Your task to perform on an android device: turn smart compose on in the gmail app Image 0: 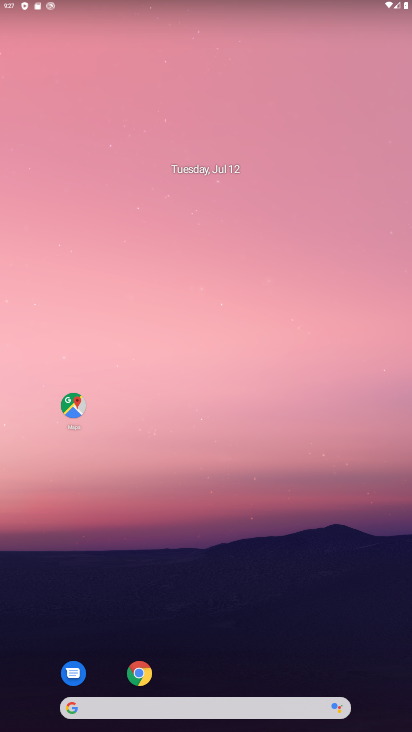
Step 0: drag from (383, 652) to (302, 142)
Your task to perform on an android device: turn smart compose on in the gmail app Image 1: 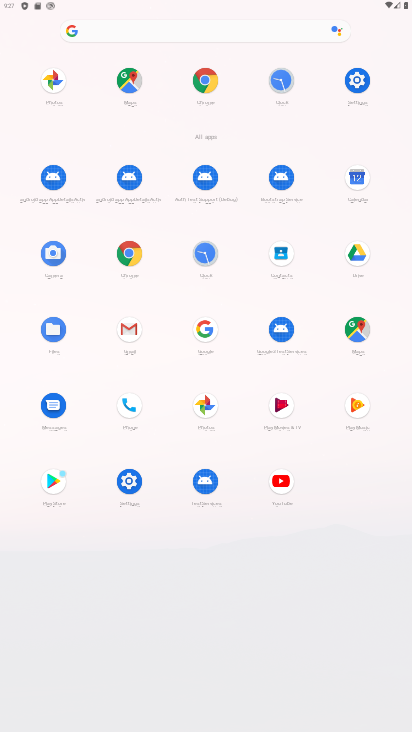
Step 1: click (137, 327)
Your task to perform on an android device: turn smart compose on in the gmail app Image 2: 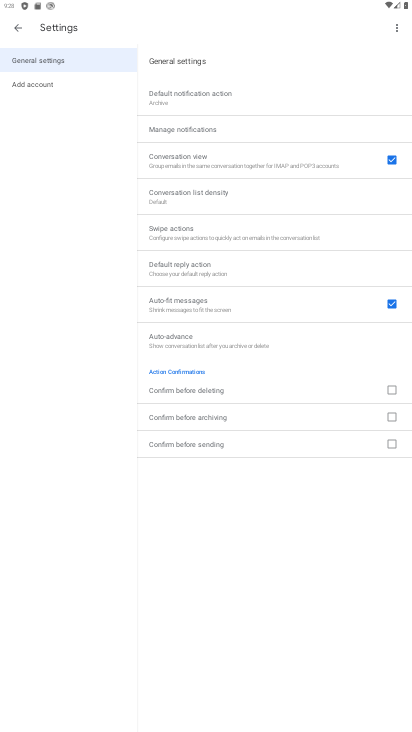
Step 2: click (12, 24)
Your task to perform on an android device: turn smart compose on in the gmail app Image 3: 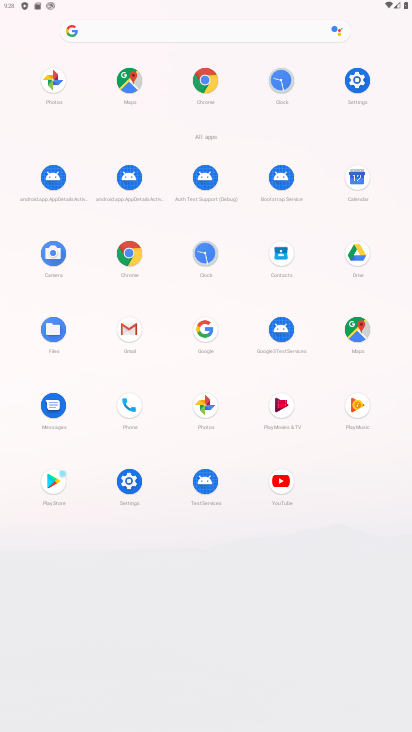
Step 3: click (128, 327)
Your task to perform on an android device: turn smart compose on in the gmail app Image 4: 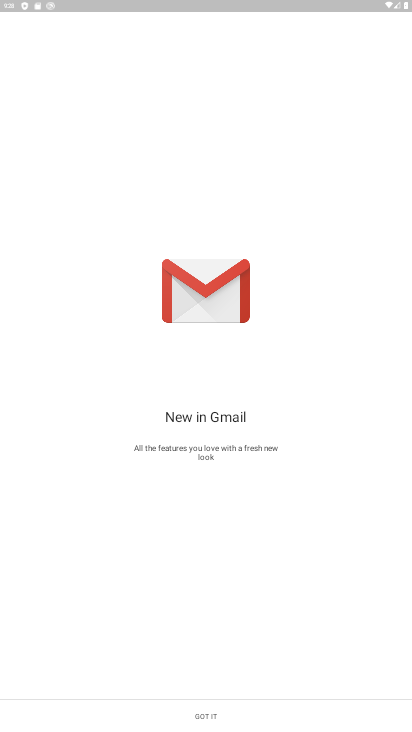
Step 4: click (211, 717)
Your task to perform on an android device: turn smart compose on in the gmail app Image 5: 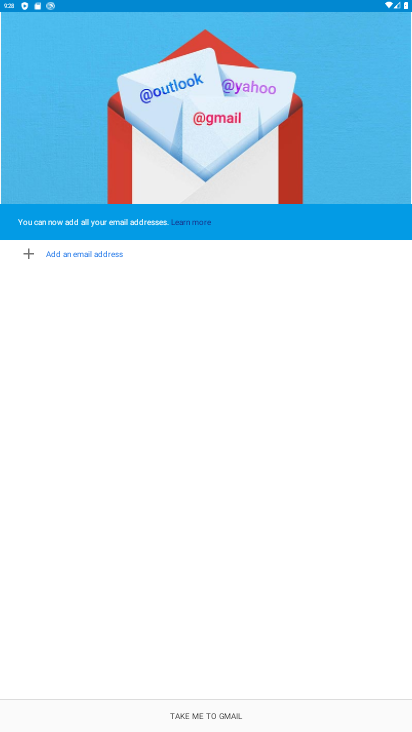
Step 5: click (208, 717)
Your task to perform on an android device: turn smart compose on in the gmail app Image 6: 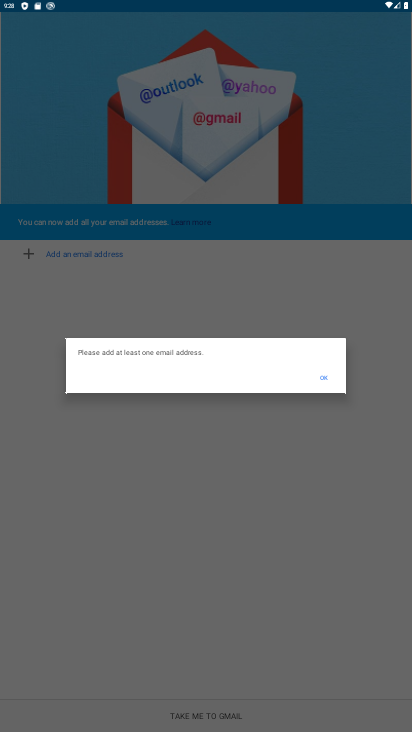
Step 6: click (331, 375)
Your task to perform on an android device: turn smart compose on in the gmail app Image 7: 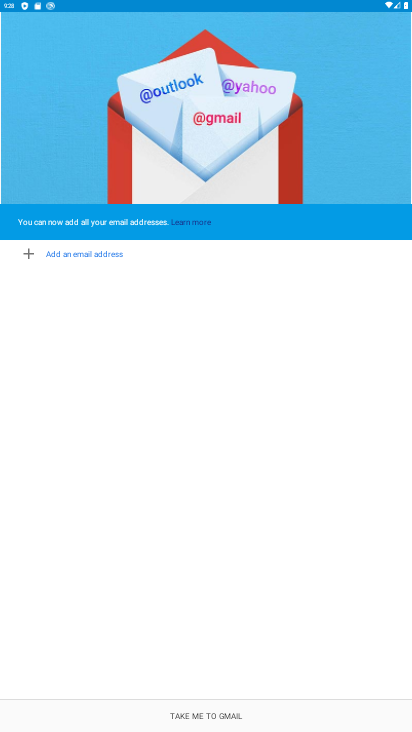
Step 7: click (184, 714)
Your task to perform on an android device: turn smart compose on in the gmail app Image 8: 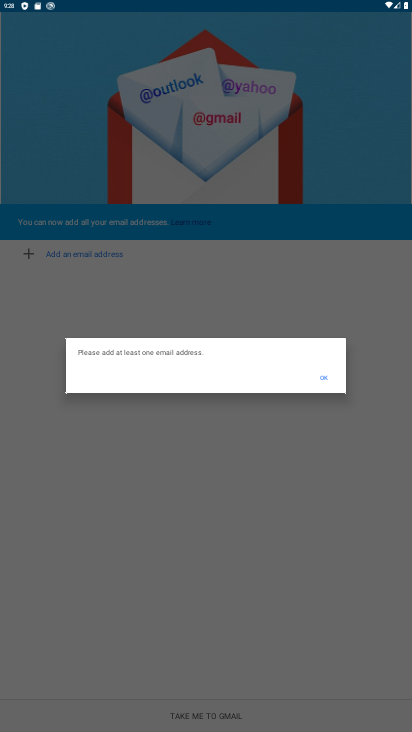
Step 8: click (322, 380)
Your task to perform on an android device: turn smart compose on in the gmail app Image 9: 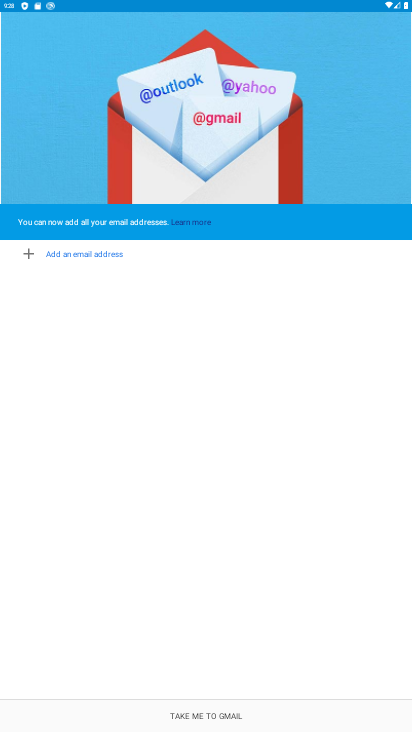
Step 9: click (218, 715)
Your task to perform on an android device: turn smart compose on in the gmail app Image 10: 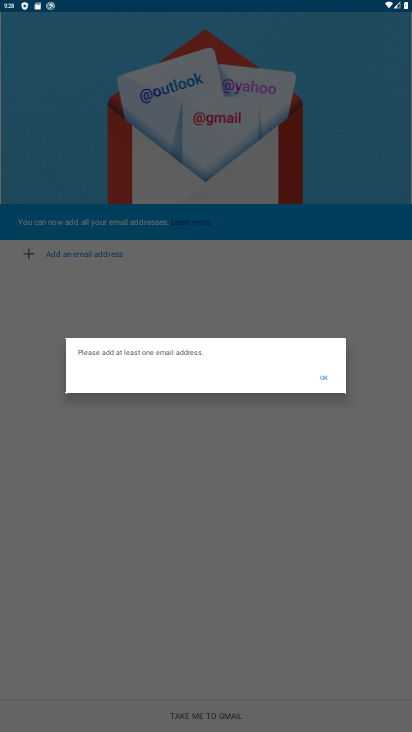
Step 10: task complete